Your task to perform on an android device: change notification settings in the gmail app Image 0: 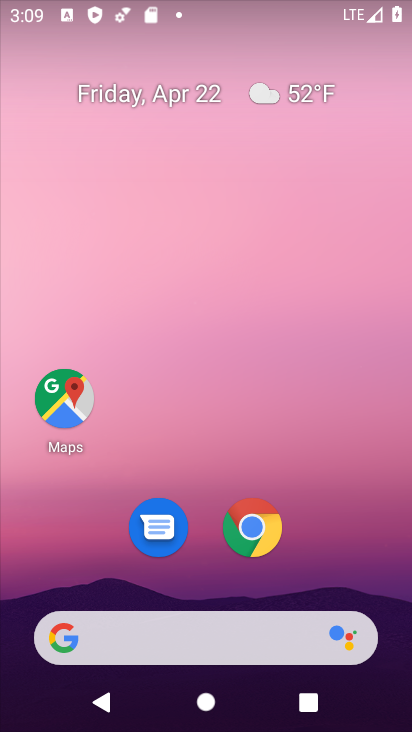
Step 0: drag from (336, 505) to (368, 45)
Your task to perform on an android device: change notification settings in the gmail app Image 1: 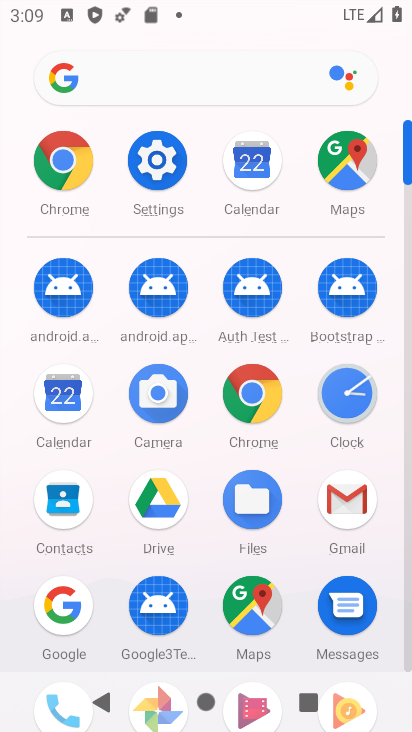
Step 1: click (341, 484)
Your task to perform on an android device: change notification settings in the gmail app Image 2: 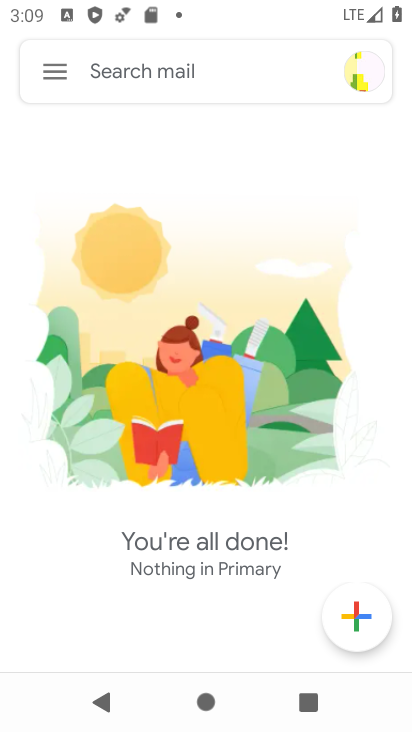
Step 2: click (39, 68)
Your task to perform on an android device: change notification settings in the gmail app Image 3: 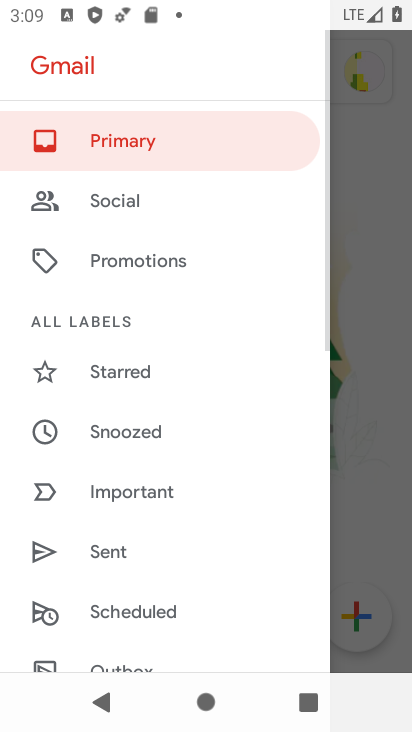
Step 3: drag from (112, 552) to (191, 172)
Your task to perform on an android device: change notification settings in the gmail app Image 4: 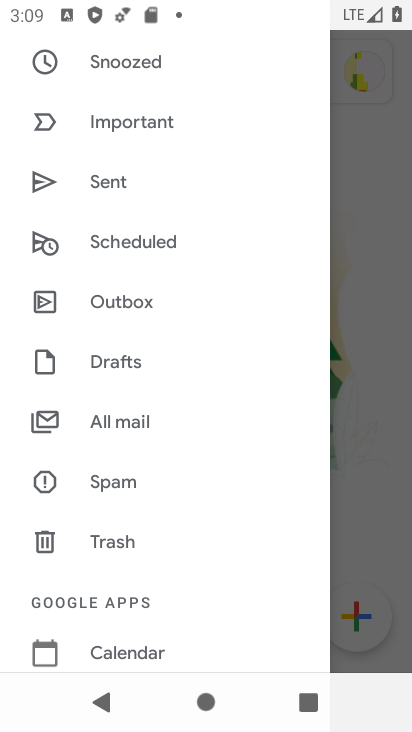
Step 4: drag from (131, 543) to (158, 125)
Your task to perform on an android device: change notification settings in the gmail app Image 5: 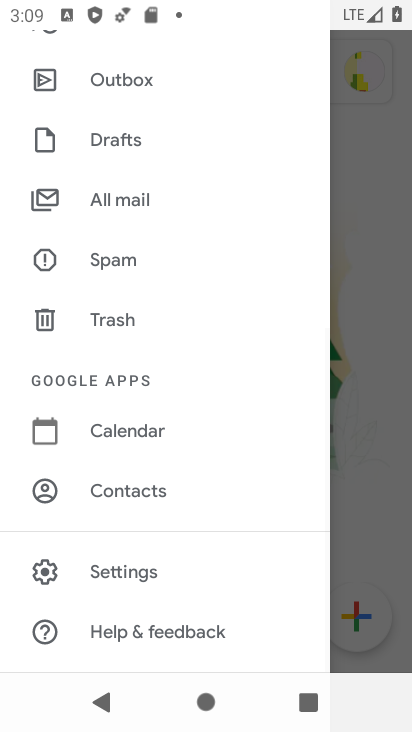
Step 5: click (109, 565)
Your task to perform on an android device: change notification settings in the gmail app Image 6: 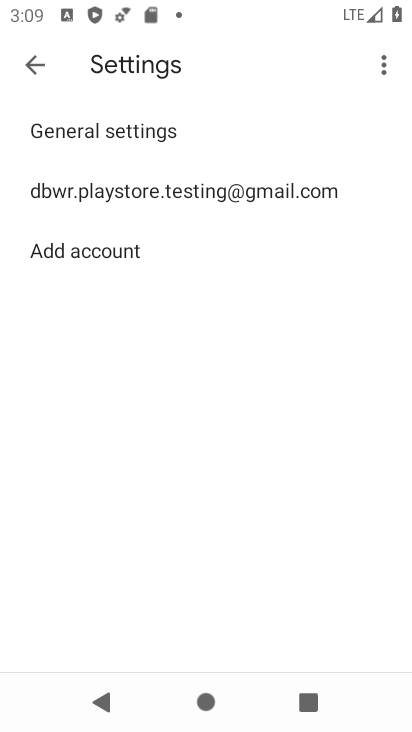
Step 6: click (108, 192)
Your task to perform on an android device: change notification settings in the gmail app Image 7: 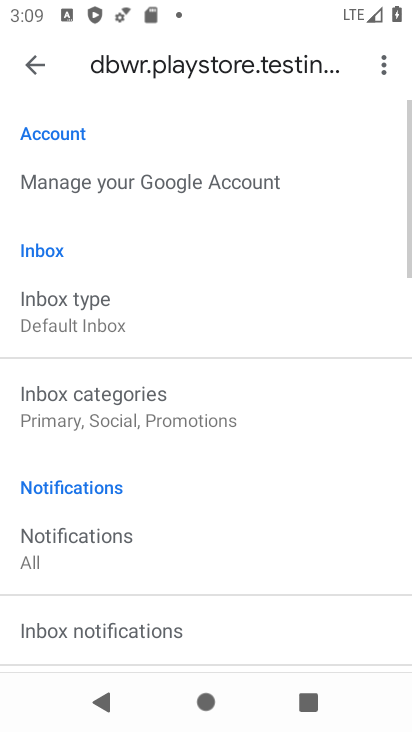
Step 7: drag from (187, 484) to (148, 238)
Your task to perform on an android device: change notification settings in the gmail app Image 8: 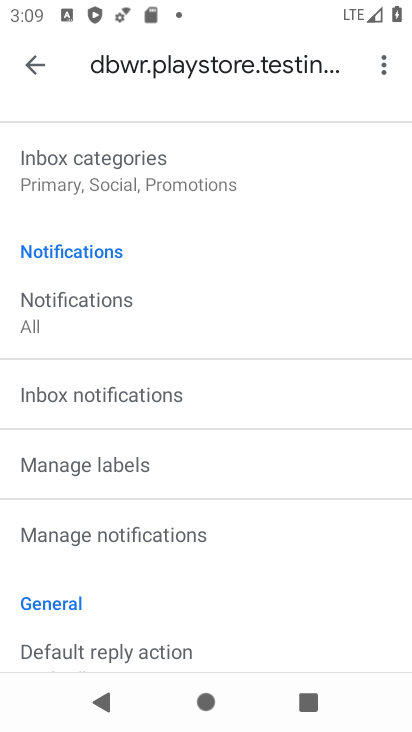
Step 8: click (51, 319)
Your task to perform on an android device: change notification settings in the gmail app Image 9: 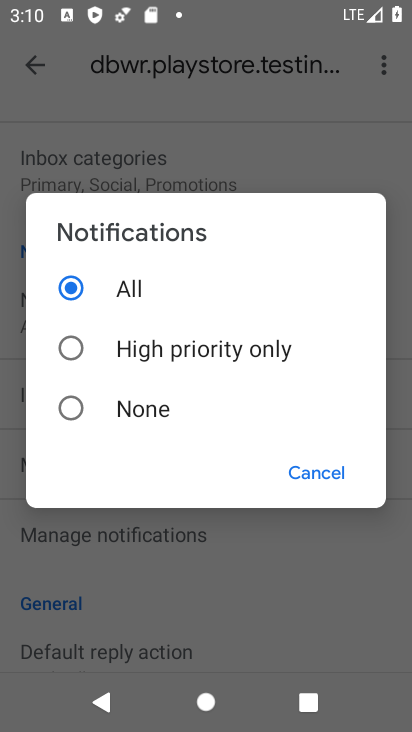
Step 9: click (80, 350)
Your task to perform on an android device: change notification settings in the gmail app Image 10: 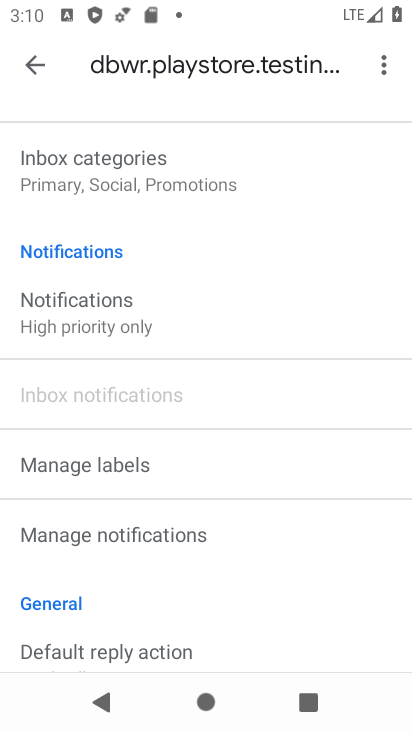
Step 10: task complete